Your task to perform on an android device: turn off location history Image 0: 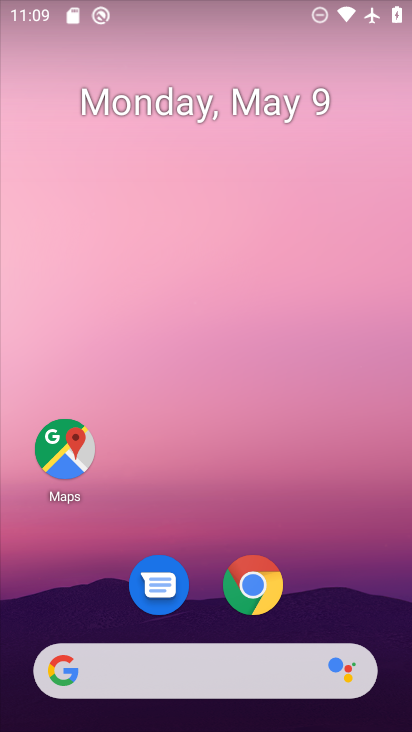
Step 0: drag from (362, 550) to (329, 37)
Your task to perform on an android device: turn off location history Image 1: 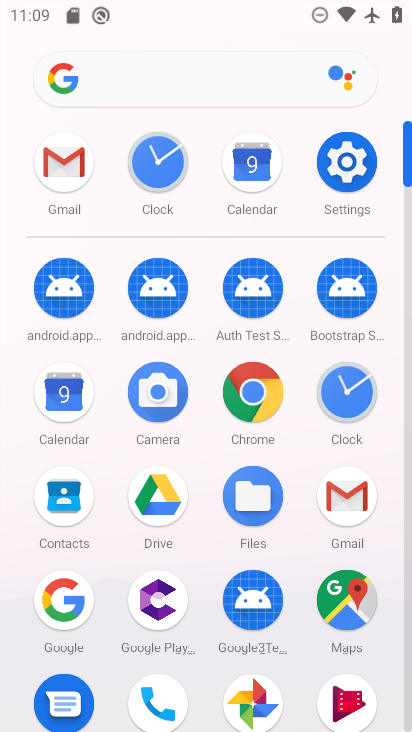
Step 1: click (338, 158)
Your task to perform on an android device: turn off location history Image 2: 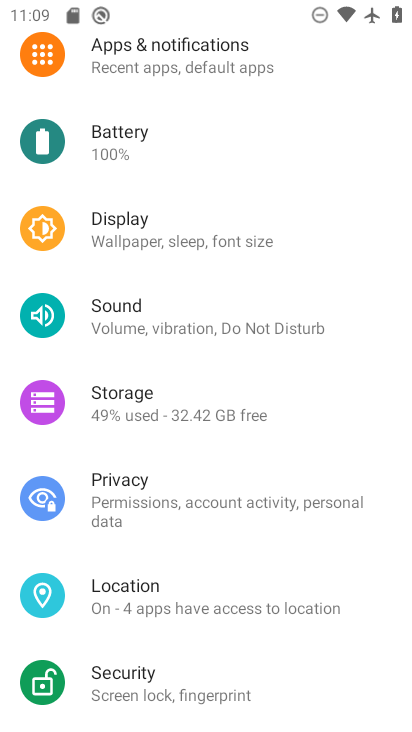
Step 2: click (222, 600)
Your task to perform on an android device: turn off location history Image 3: 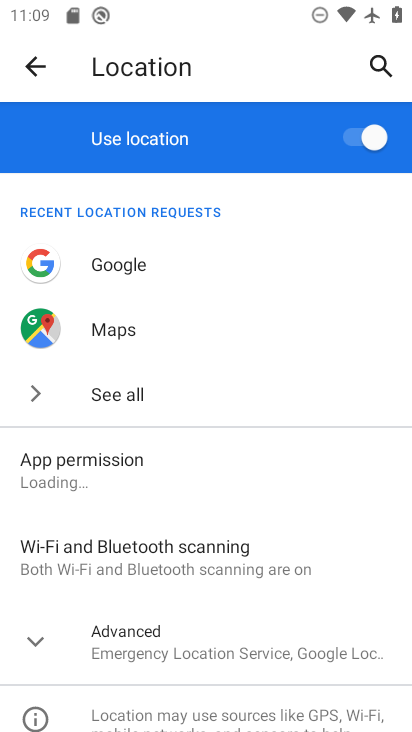
Step 3: drag from (234, 597) to (259, 255)
Your task to perform on an android device: turn off location history Image 4: 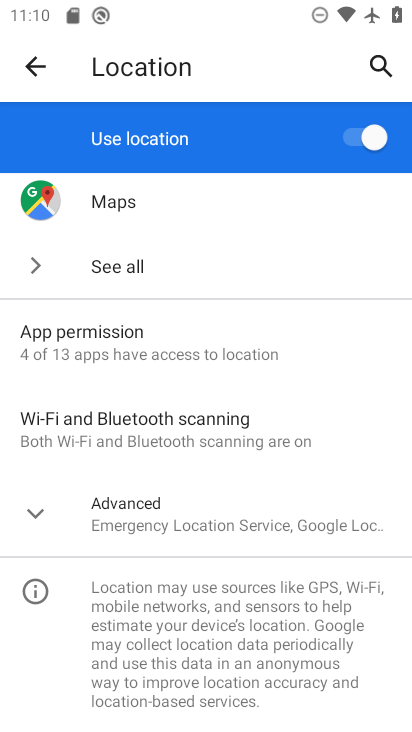
Step 4: click (41, 510)
Your task to perform on an android device: turn off location history Image 5: 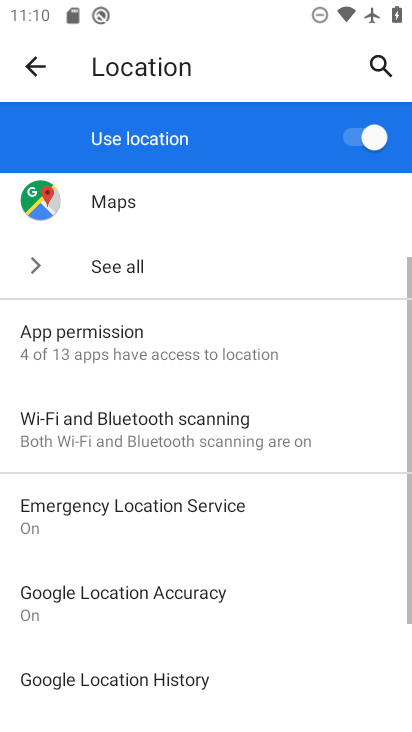
Step 5: drag from (221, 657) to (228, 470)
Your task to perform on an android device: turn off location history Image 6: 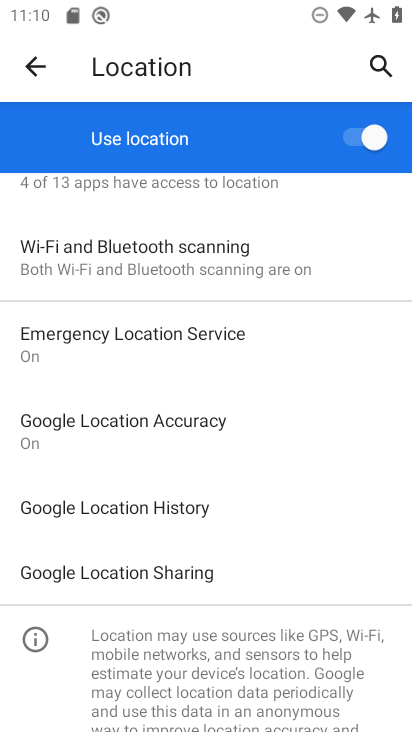
Step 6: click (200, 513)
Your task to perform on an android device: turn off location history Image 7: 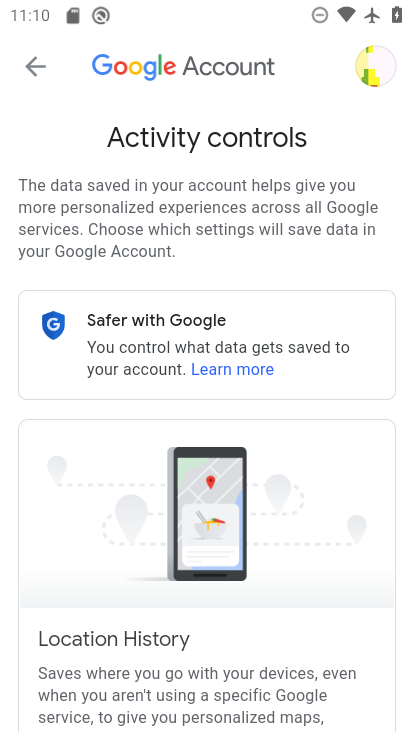
Step 7: drag from (272, 628) to (299, 216)
Your task to perform on an android device: turn off location history Image 8: 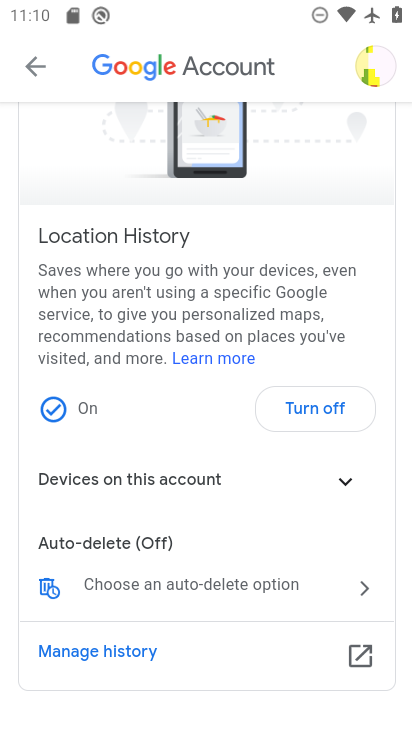
Step 8: click (318, 414)
Your task to perform on an android device: turn off location history Image 9: 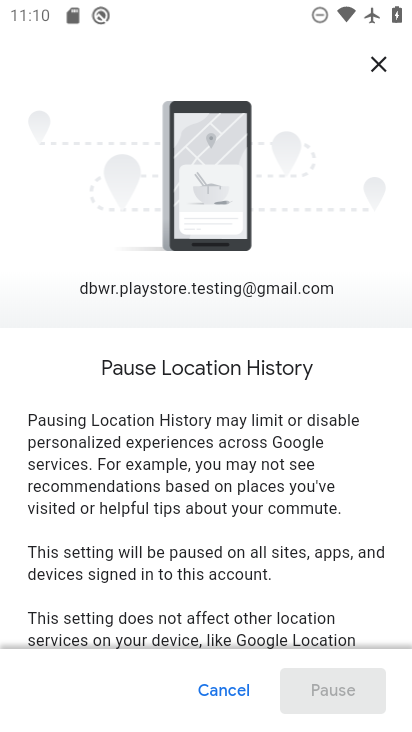
Step 9: drag from (276, 611) to (342, 29)
Your task to perform on an android device: turn off location history Image 10: 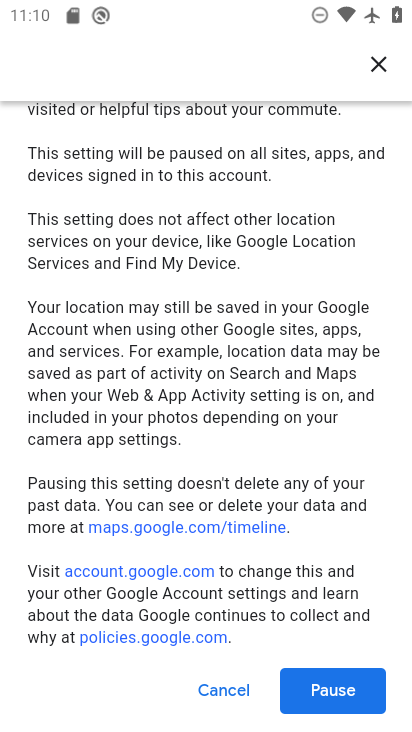
Step 10: click (319, 683)
Your task to perform on an android device: turn off location history Image 11: 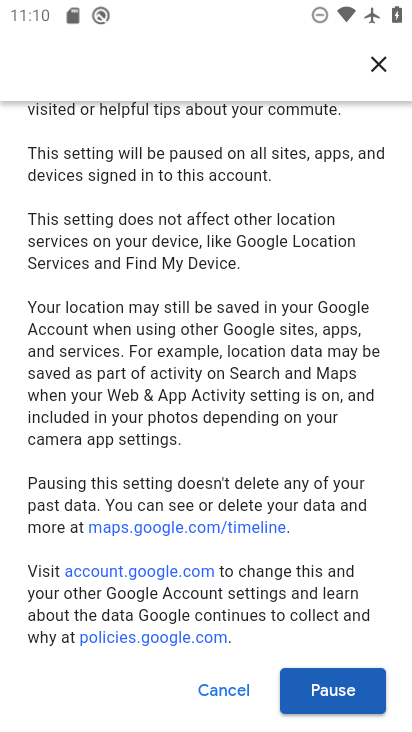
Step 11: click (345, 691)
Your task to perform on an android device: turn off location history Image 12: 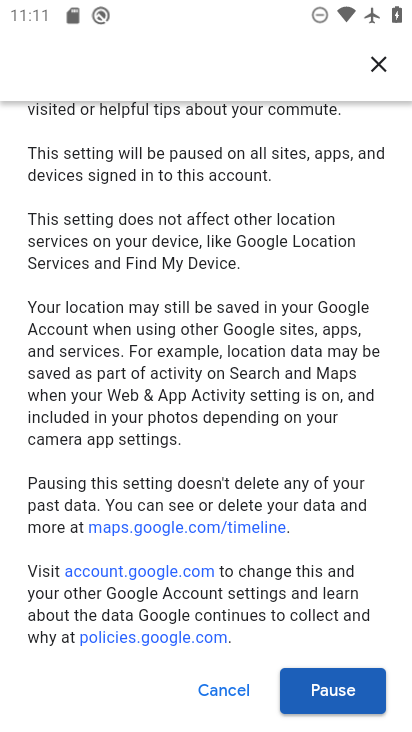
Step 12: click (360, 687)
Your task to perform on an android device: turn off location history Image 13: 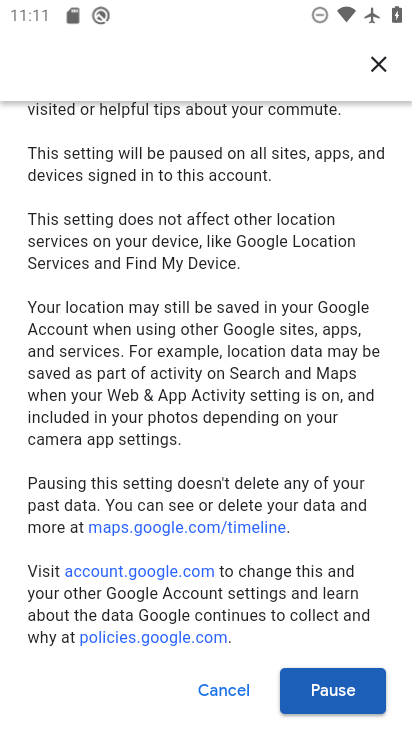
Step 13: click (360, 680)
Your task to perform on an android device: turn off location history Image 14: 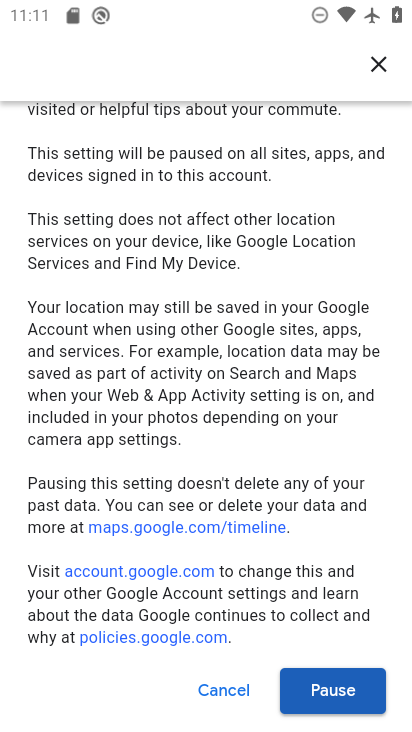
Step 14: click (344, 696)
Your task to perform on an android device: turn off location history Image 15: 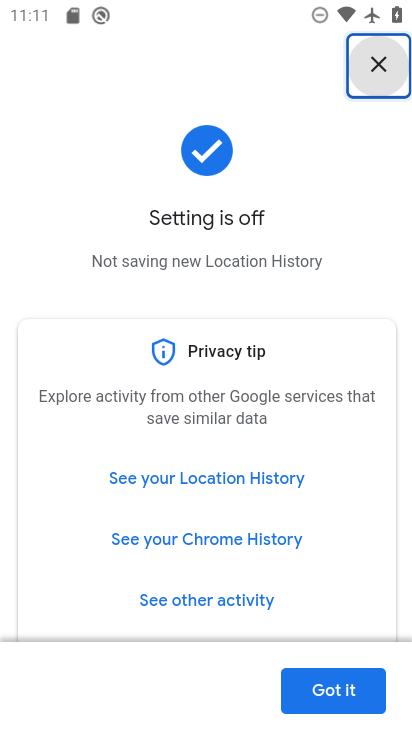
Step 15: click (344, 693)
Your task to perform on an android device: turn off location history Image 16: 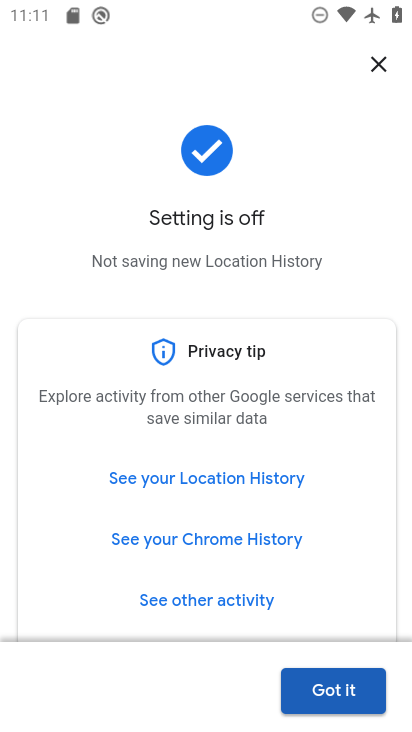
Step 16: click (333, 683)
Your task to perform on an android device: turn off location history Image 17: 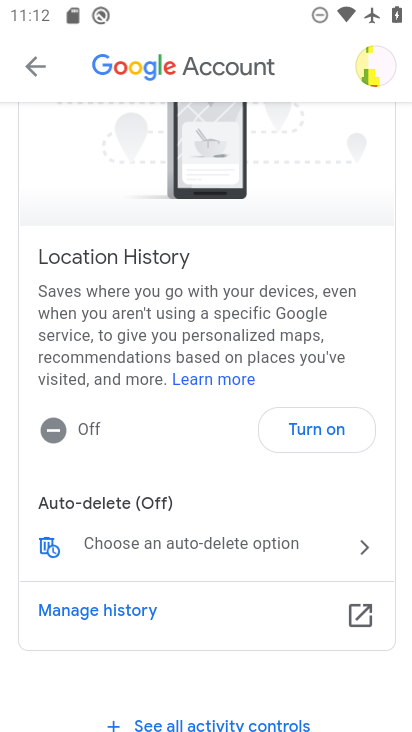
Step 17: task complete